Your task to perform on an android device: Open the phone app and click the voicemail tab. Image 0: 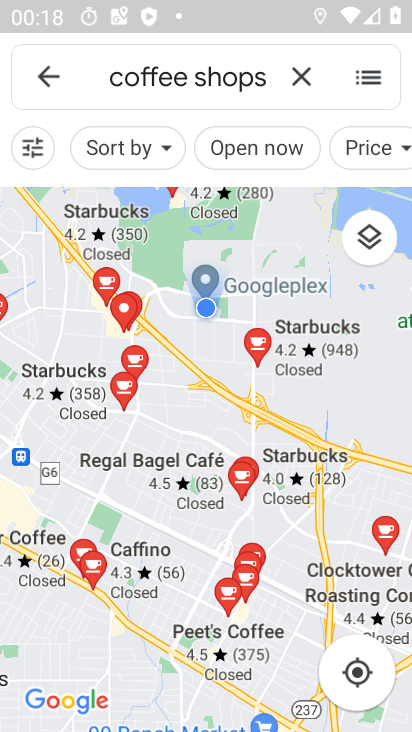
Step 0: press home button
Your task to perform on an android device: Open the phone app and click the voicemail tab. Image 1: 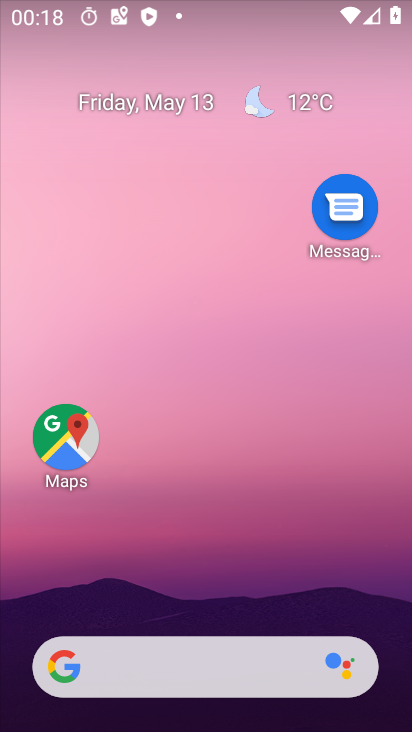
Step 1: drag from (299, 563) to (292, 7)
Your task to perform on an android device: Open the phone app and click the voicemail tab. Image 2: 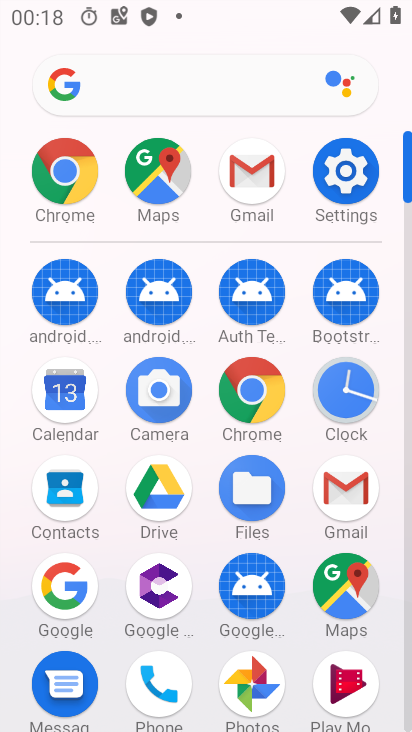
Step 2: click (170, 675)
Your task to perform on an android device: Open the phone app and click the voicemail tab. Image 3: 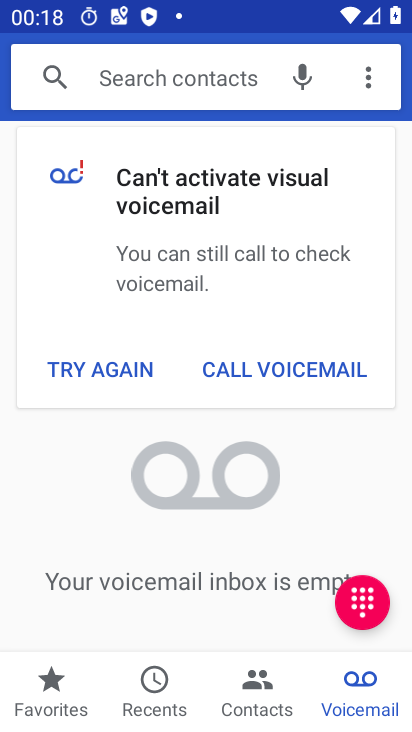
Step 3: task complete